Your task to perform on an android device: Open Wikipedia Image 0: 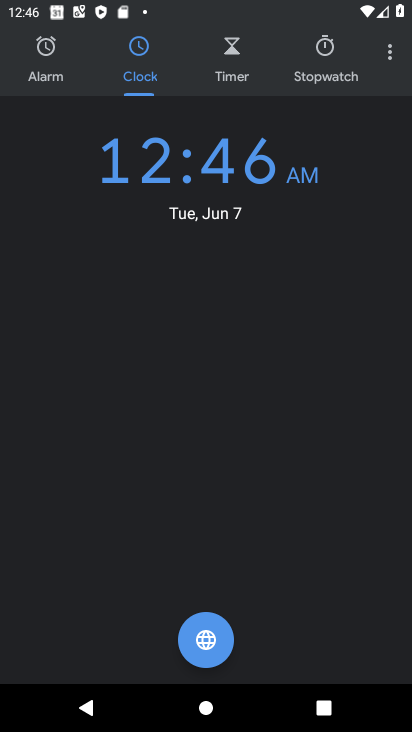
Step 0: press home button
Your task to perform on an android device: Open Wikipedia Image 1: 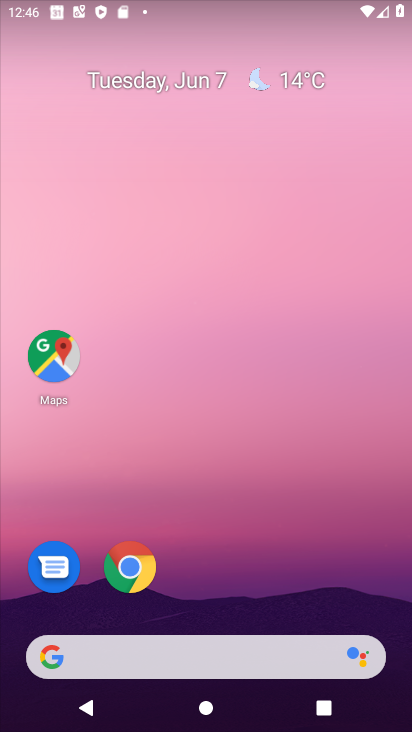
Step 1: click (124, 563)
Your task to perform on an android device: Open Wikipedia Image 2: 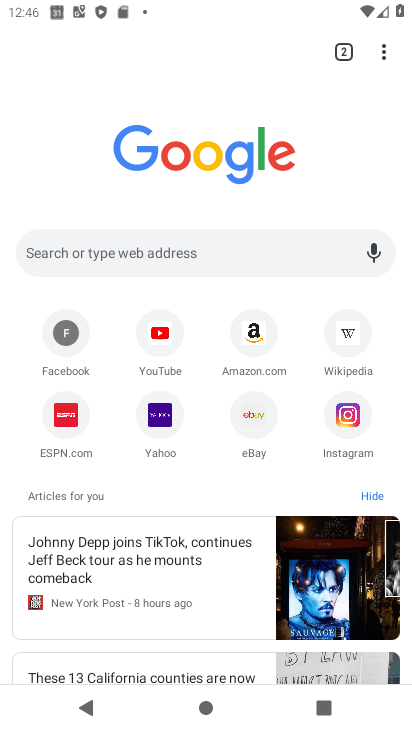
Step 2: click (342, 330)
Your task to perform on an android device: Open Wikipedia Image 3: 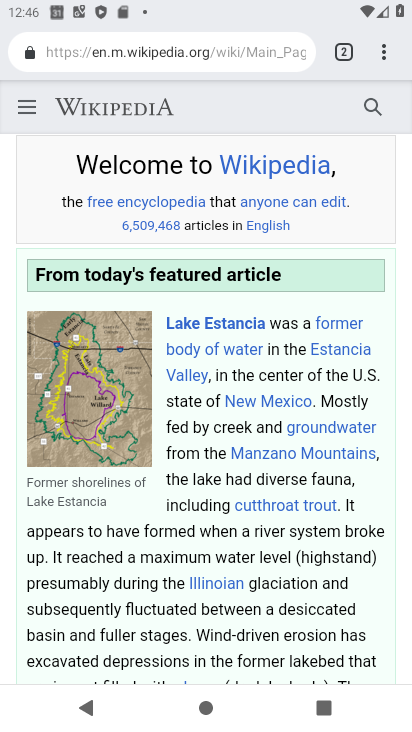
Step 3: task complete